Your task to perform on an android device: change the clock display to show seconds Image 0: 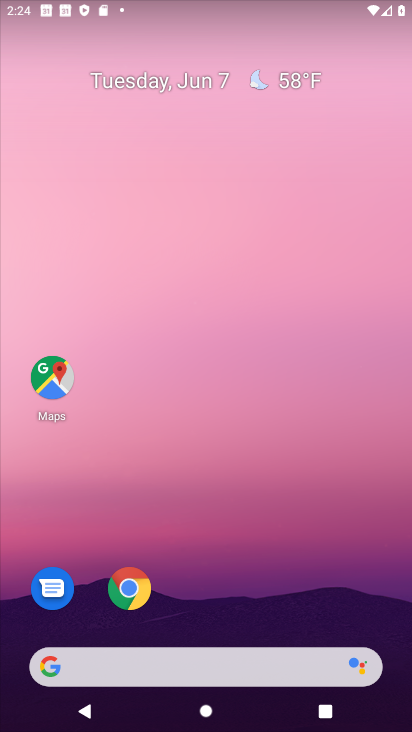
Step 0: drag from (256, 621) to (146, 188)
Your task to perform on an android device: change the clock display to show seconds Image 1: 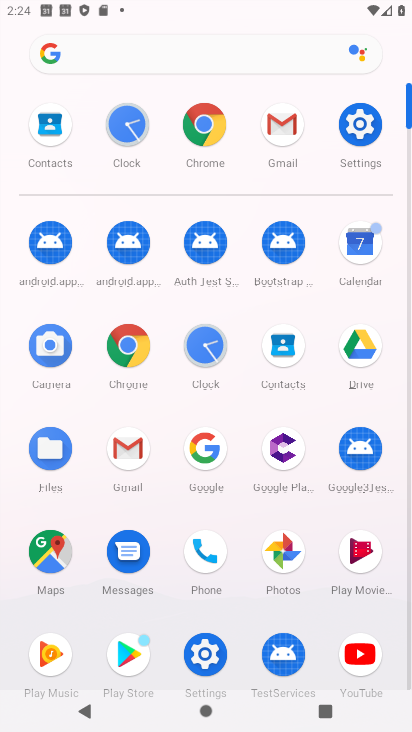
Step 1: click (124, 140)
Your task to perform on an android device: change the clock display to show seconds Image 2: 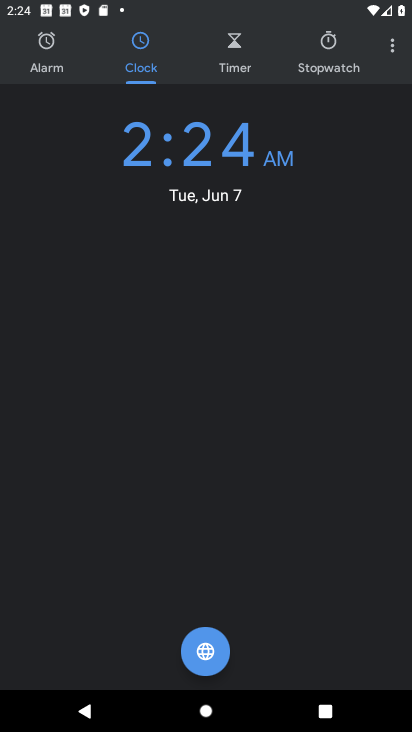
Step 2: click (385, 50)
Your task to perform on an android device: change the clock display to show seconds Image 3: 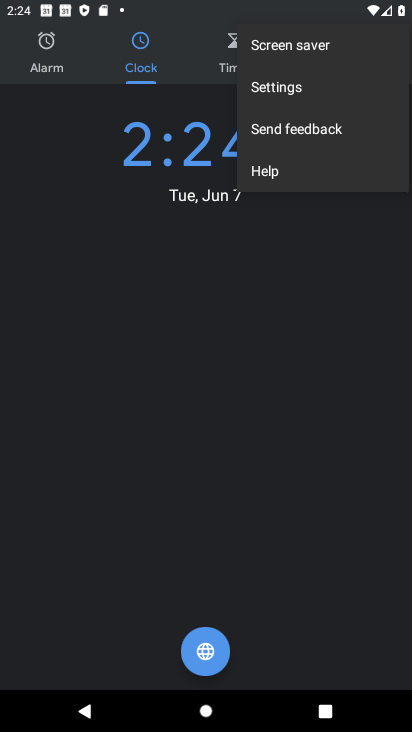
Step 3: click (288, 81)
Your task to perform on an android device: change the clock display to show seconds Image 4: 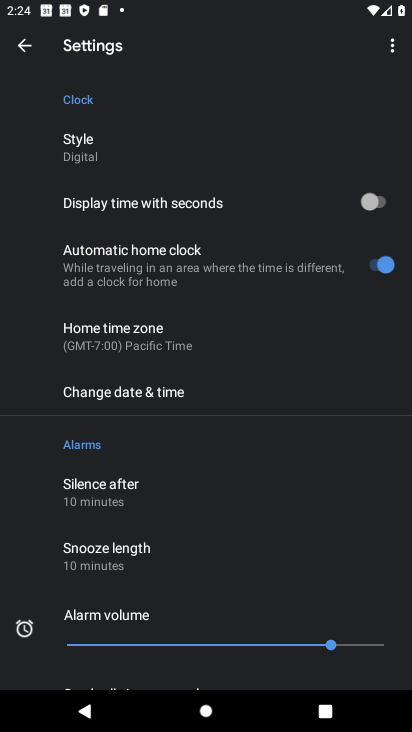
Step 4: click (196, 195)
Your task to perform on an android device: change the clock display to show seconds Image 5: 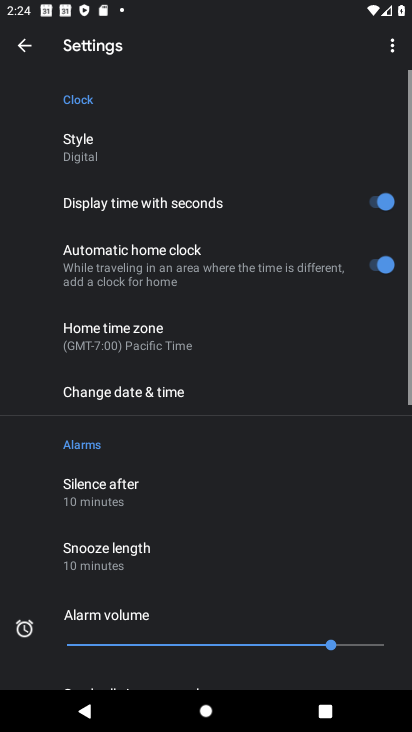
Step 5: task complete